Your task to perform on an android device: Search for macbook pro 15 inch on costco, select the first entry, add it to the cart, then select checkout. Image 0: 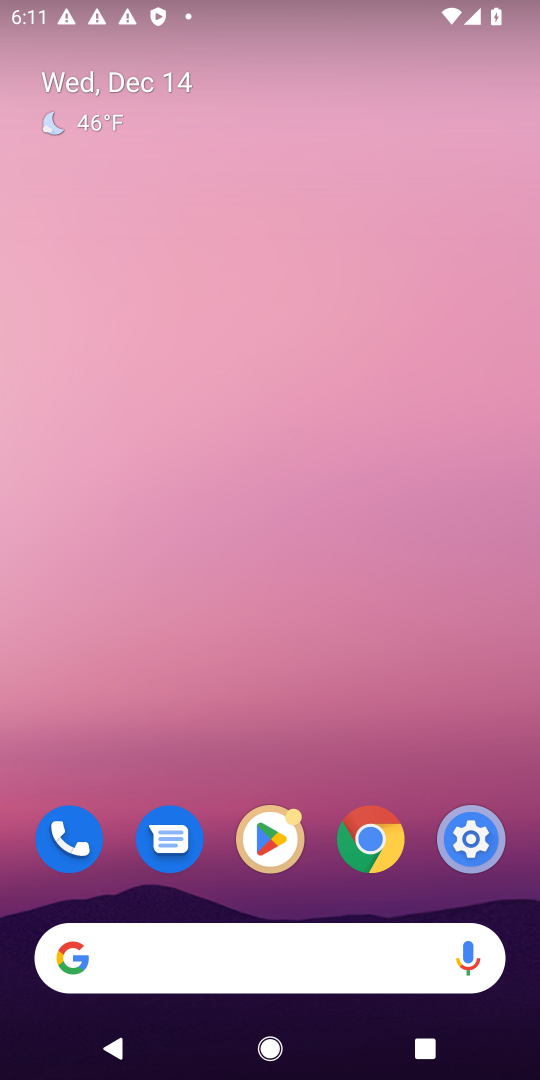
Step 0: type "costco"
Your task to perform on an android device: Search for macbook pro 15 inch on costco, select the first entry, add it to the cart, then select checkout. Image 1: 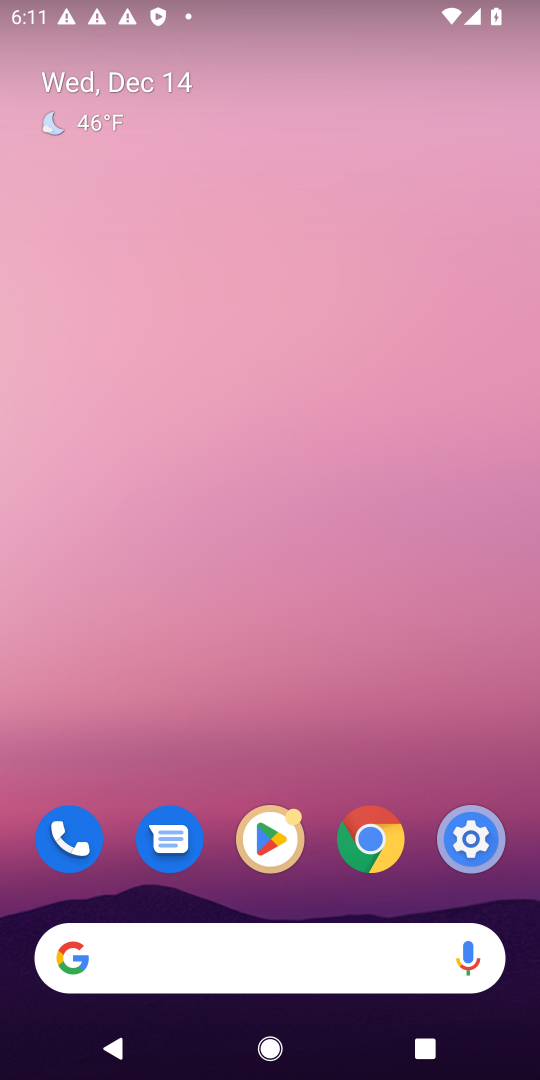
Step 1: click (339, 932)
Your task to perform on an android device: Search for macbook pro 15 inch on costco, select the first entry, add it to the cart, then select checkout. Image 2: 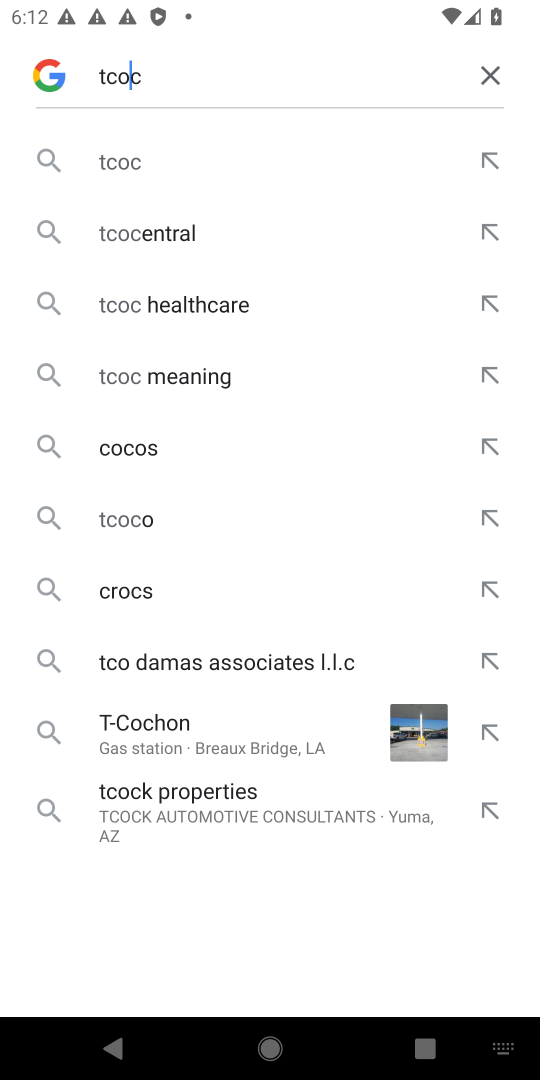
Step 2: click (487, 70)
Your task to perform on an android device: Search for macbook pro 15 inch on costco, select the first entry, add it to the cart, then select checkout. Image 3: 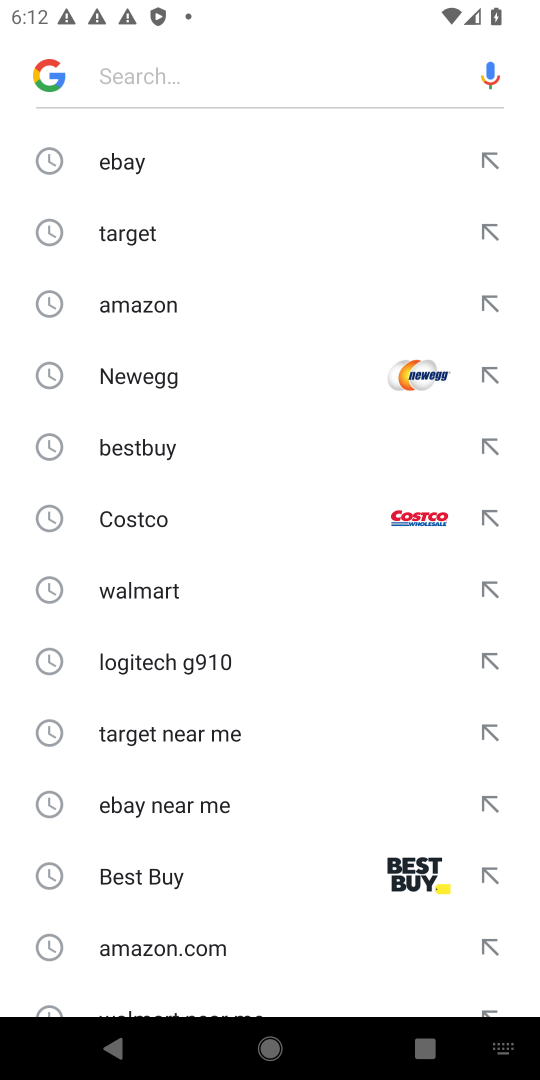
Step 3: click (487, 70)
Your task to perform on an android device: Search for macbook pro 15 inch on costco, select the first entry, add it to the cart, then select checkout. Image 4: 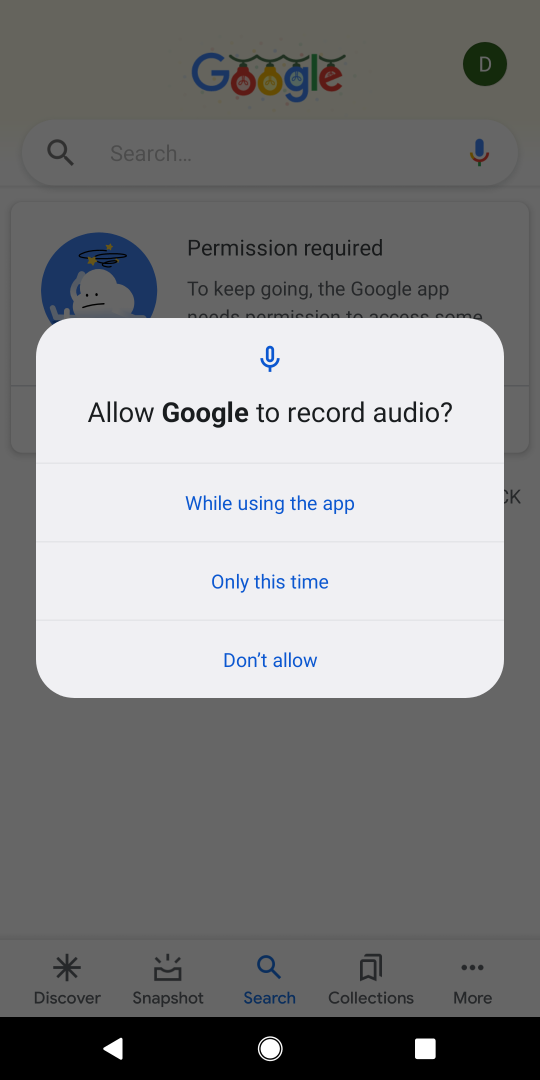
Step 4: click (283, 597)
Your task to perform on an android device: Search for macbook pro 15 inch on costco, select the first entry, add it to the cart, then select checkout. Image 5: 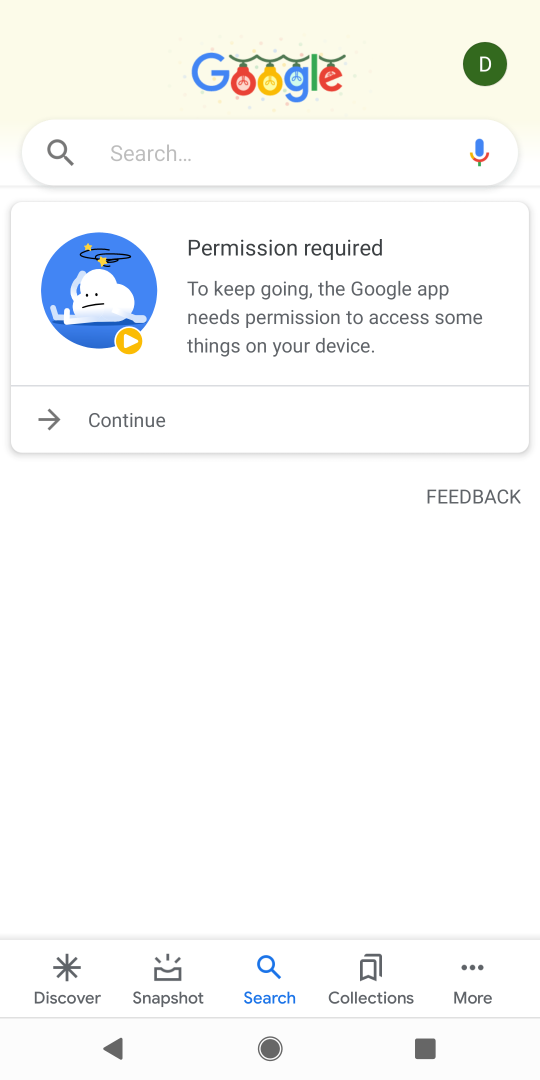
Step 5: click (215, 170)
Your task to perform on an android device: Search for macbook pro 15 inch on costco, select the first entry, add it to the cart, then select checkout. Image 6: 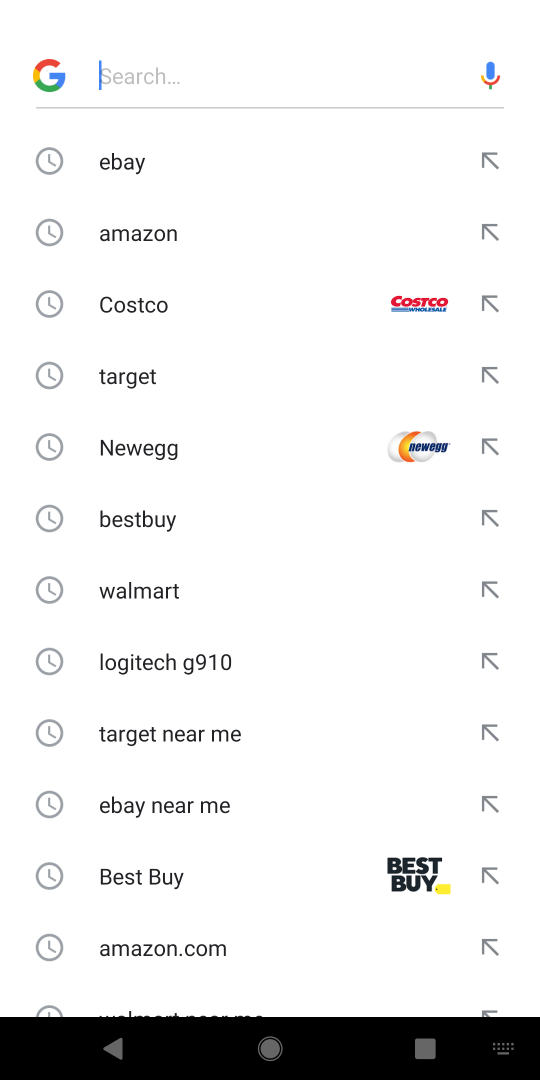
Step 6: type "costco"
Your task to perform on an android device: Search for macbook pro 15 inch on costco, select the first entry, add it to the cart, then select checkout. Image 7: 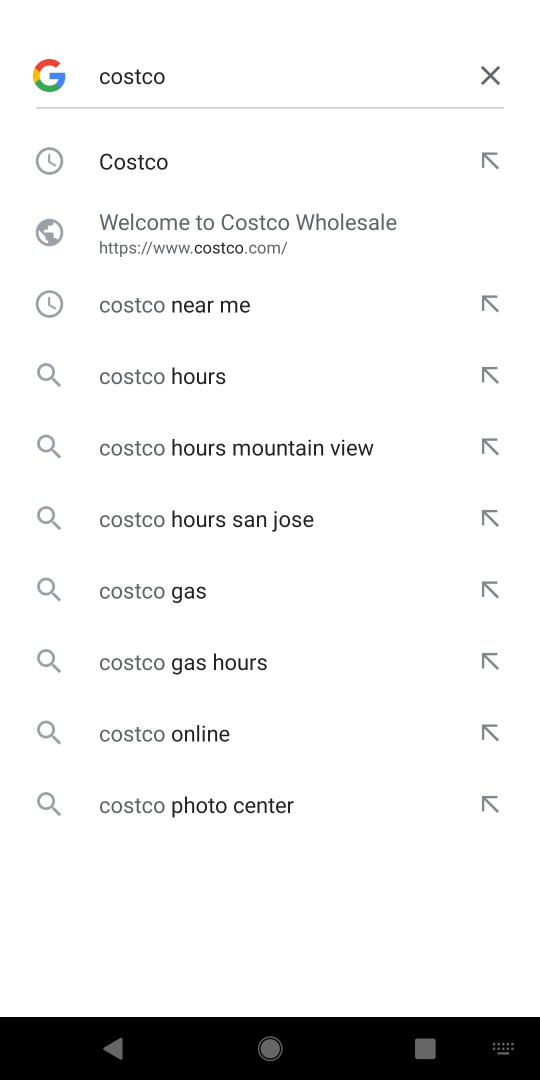
Step 7: click (253, 150)
Your task to perform on an android device: Search for macbook pro 15 inch on costco, select the first entry, add it to the cart, then select checkout. Image 8: 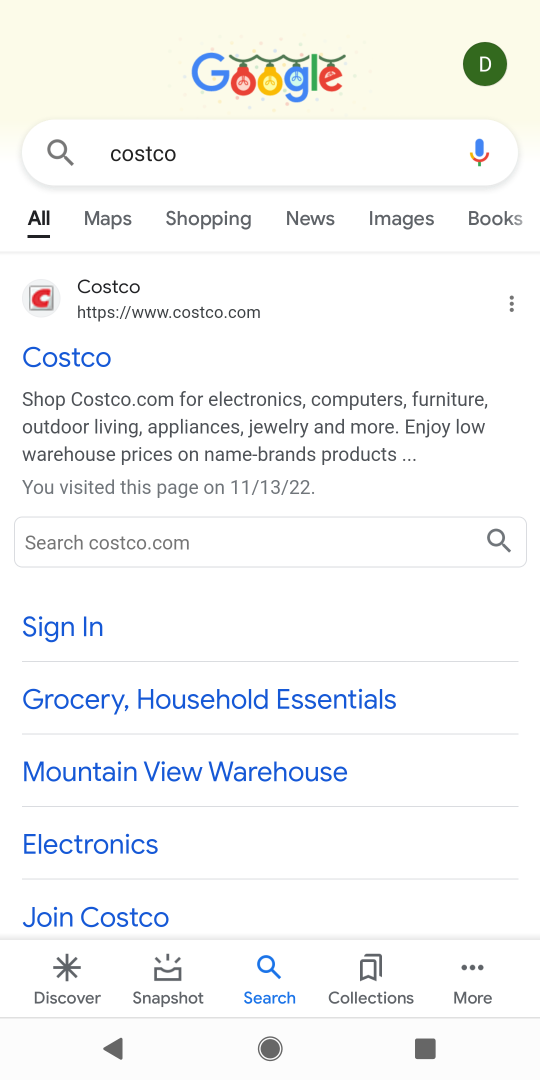
Step 8: click (74, 343)
Your task to perform on an android device: Search for macbook pro 15 inch on costco, select the first entry, add it to the cart, then select checkout. Image 9: 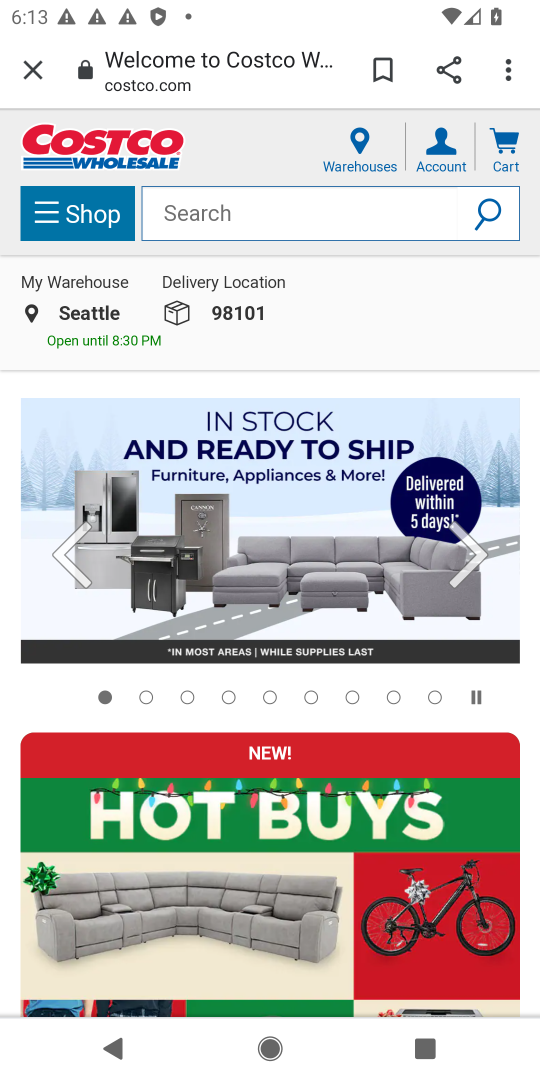
Step 9: click (275, 201)
Your task to perform on an android device: Search for macbook pro 15 inch on costco, select the first entry, add it to the cart, then select checkout. Image 10: 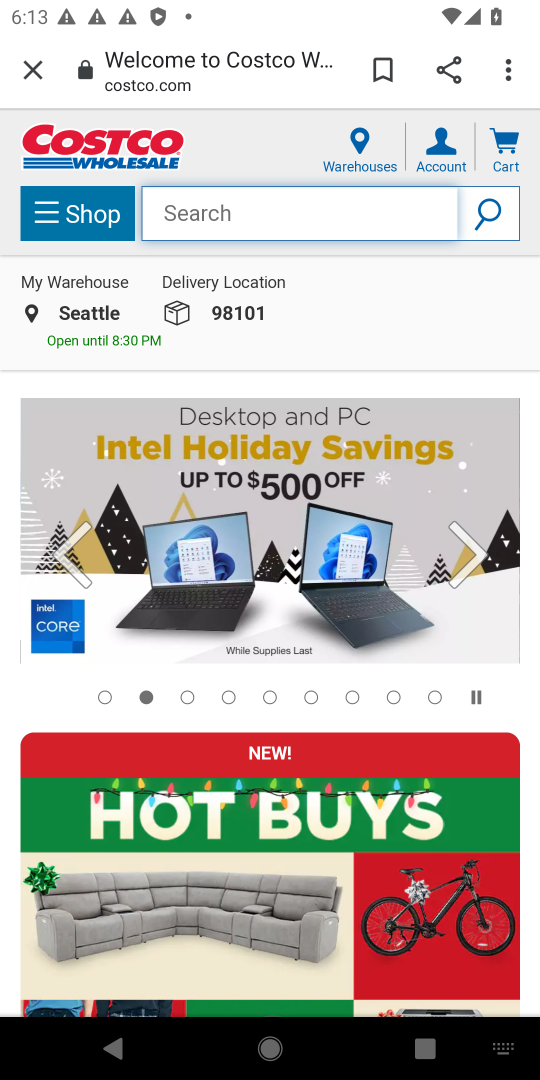
Step 10: type "macbook pro 15"
Your task to perform on an android device: Search for macbook pro 15 inch on costco, select the first entry, add it to the cart, then select checkout. Image 11: 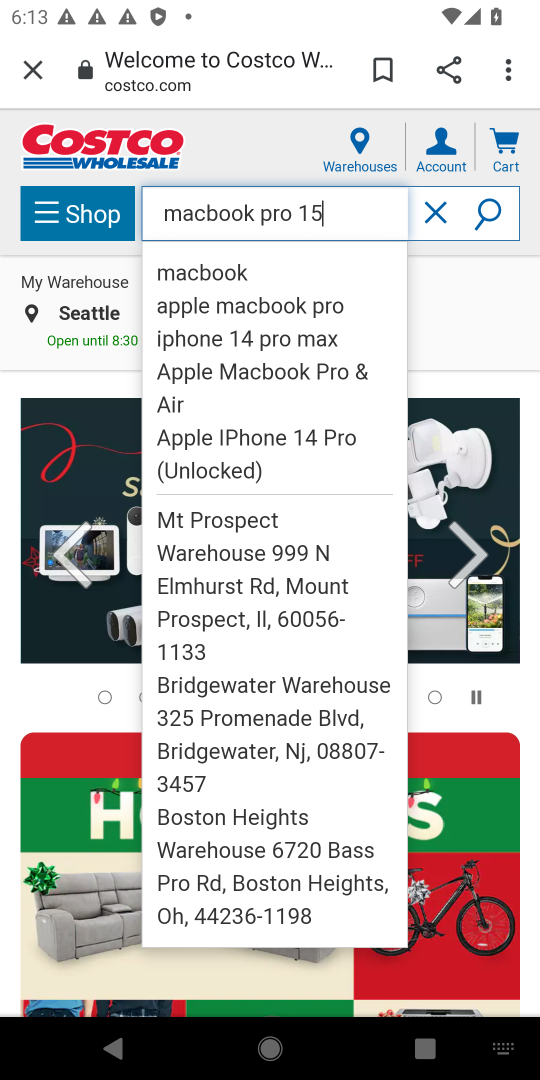
Step 11: click (498, 227)
Your task to perform on an android device: Search for macbook pro 15 inch on costco, select the first entry, add it to the cart, then select checkout. Image 12: 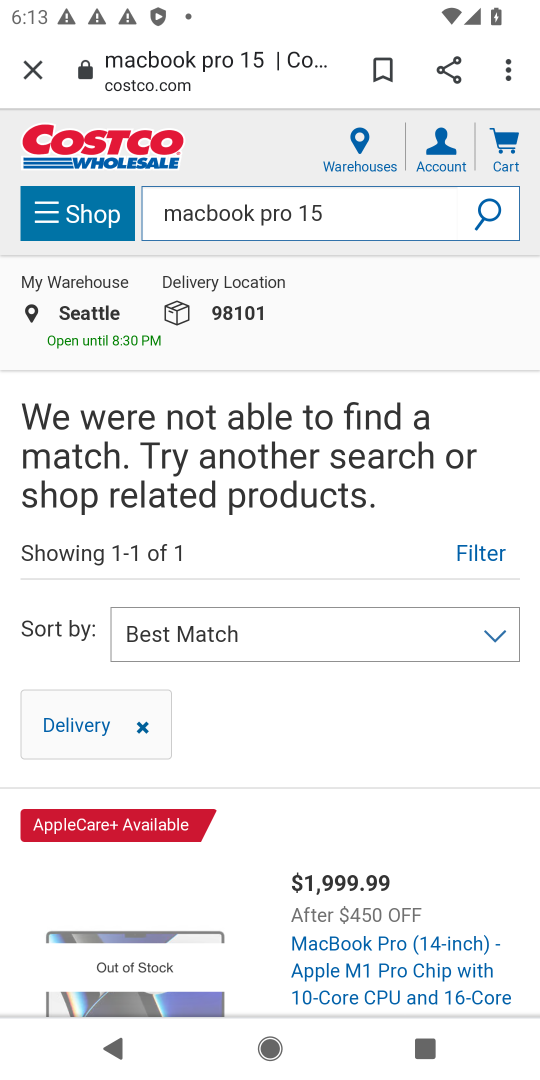
Step 12: task complete